Your task to perform on an android device: Show me productivity apps on the Play Store Image 0: 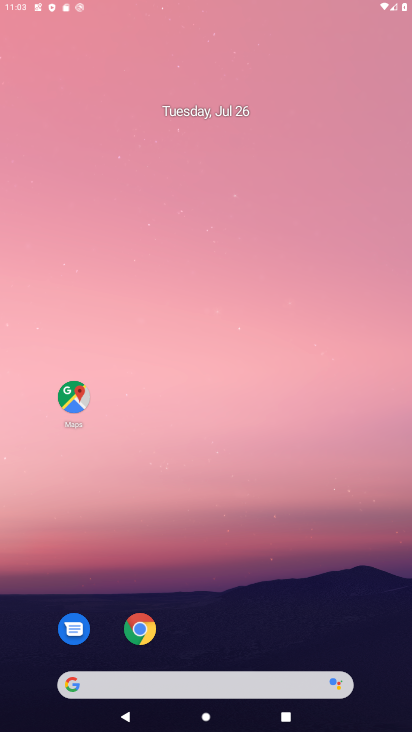
Step 0: click (378, 74)
Your task to perform on an android device: Show me productivity apps on the Play Store Image 1: 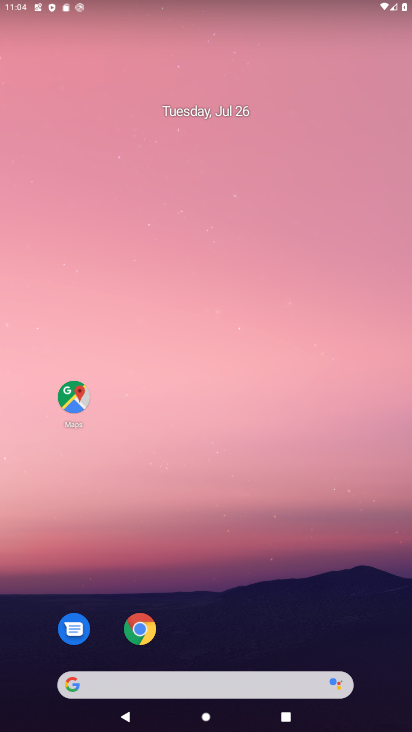
Step 1: drag from (259, 640) to (207, 36)
Your task to perform on an android device: Show me productivity apps on the Play Store Image 2: 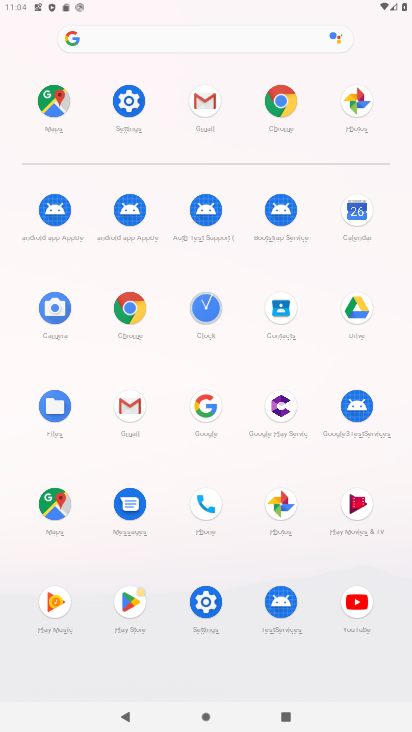
Step 2: click (109, 599)
Your task to perform on an android device: Show me productivity apps on the Play Store Image 3: 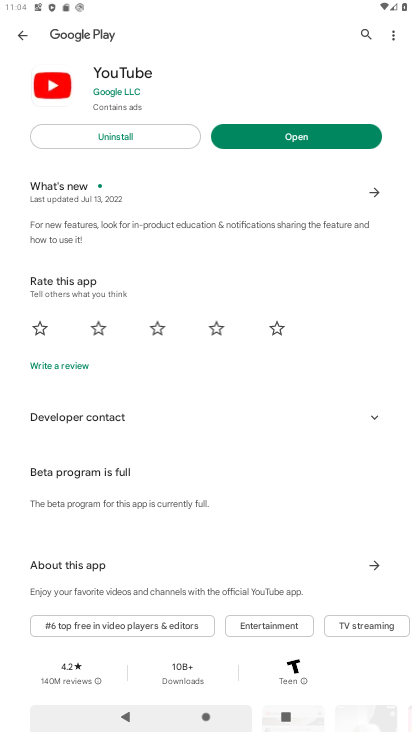
Step 3: click (311, 134)
Your task to perform on an android device: Show me productivity apps on the Play Store Image 4: 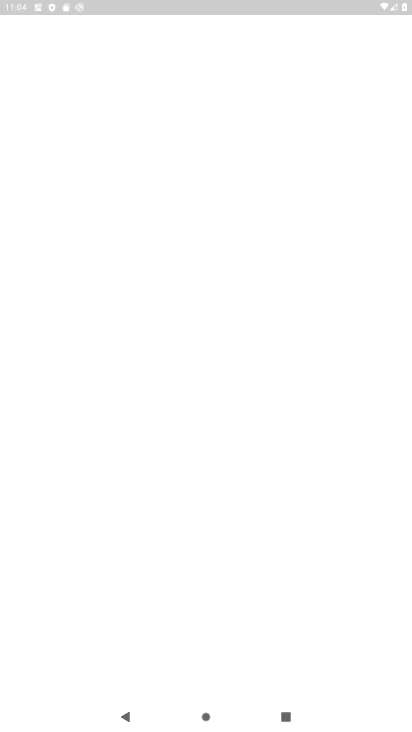
Step 4: task complete